Your task to perform on an android device: What's the weather like in Paris? Image 0: 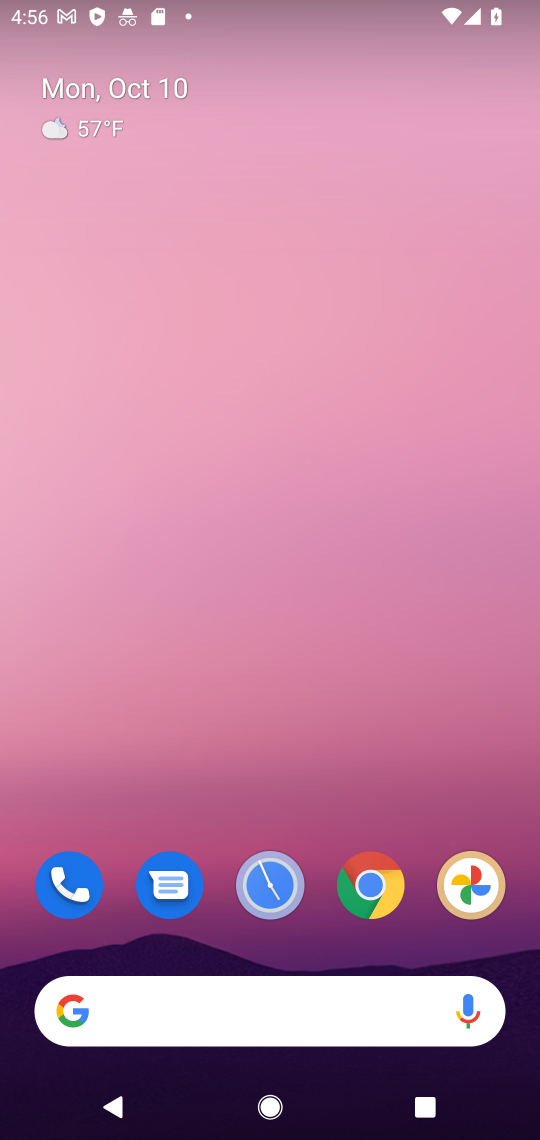
Step 0: click (242, 1008)
Your task to perform on an android device: What's the weather like in Paris? Image 1: 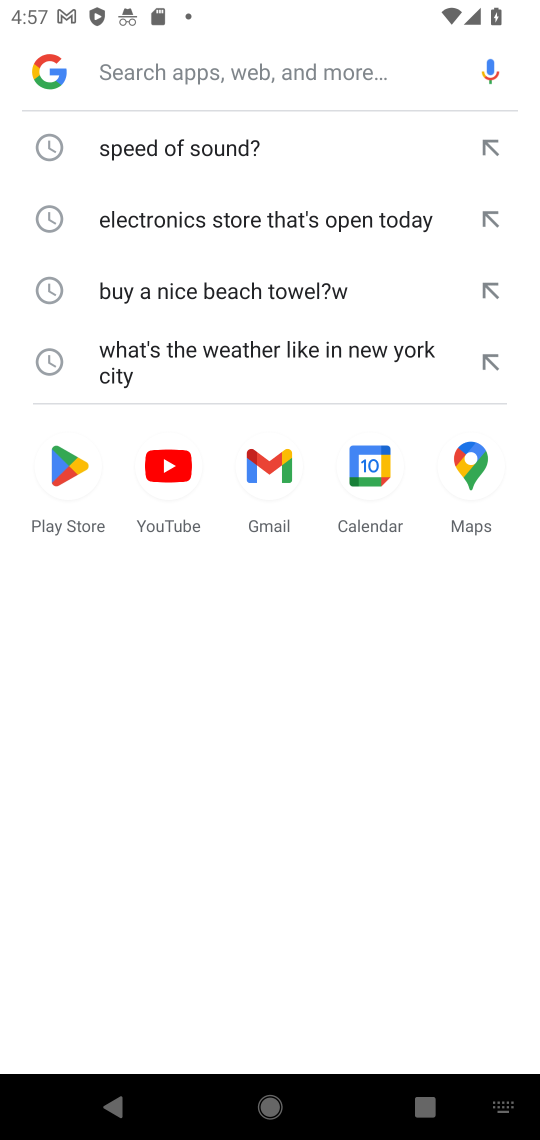
Step 1: type "What's the weather like in Paris?"
Your task to perform on an android device: What's the weather like in Paris? Image 2: 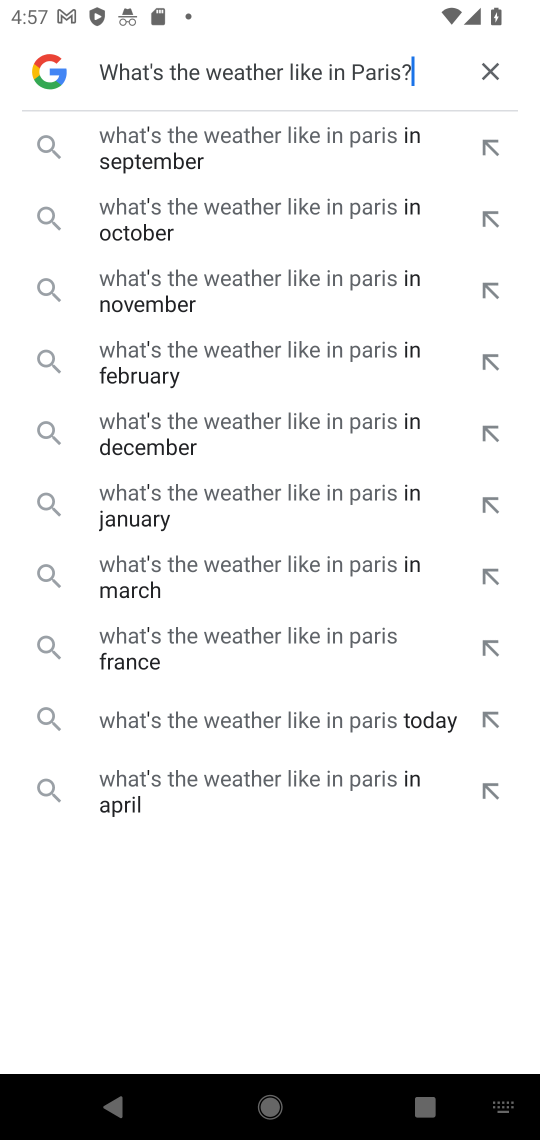
Step 2: click (255, 206)
Your task to perform on an android device: What's the weather like in Paris? Image 3: 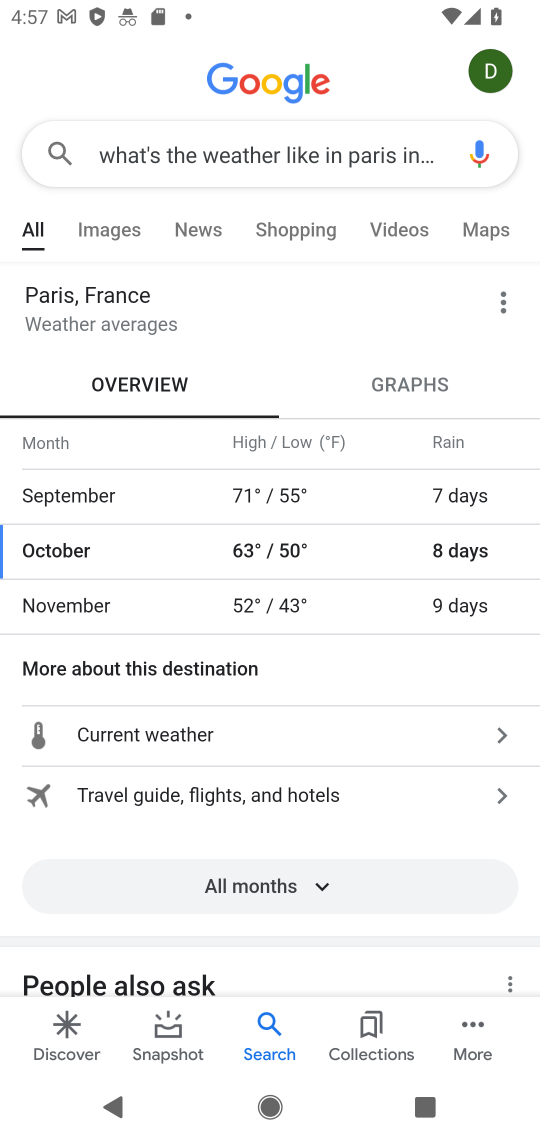
Step 3: task complete